Your task to perform on an android device: Do I have any events tomorrow? Image 0: 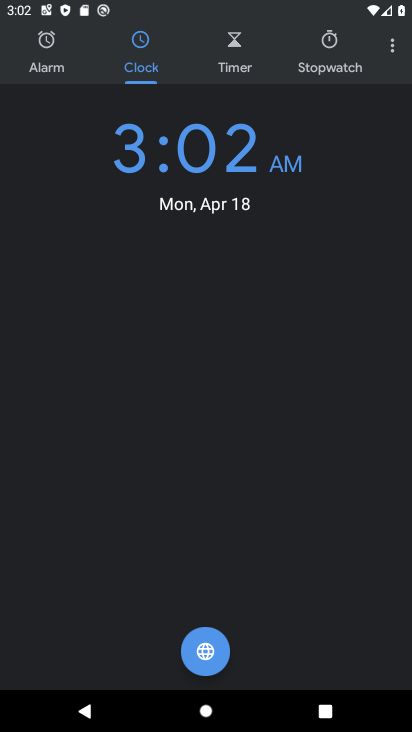
Step 0: press home button
Your task to perform on an android device: Do I have any events tomorrow? Image 1: 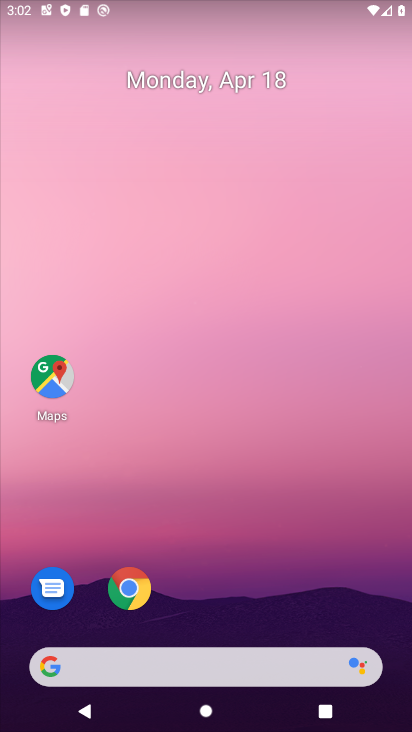
Step 1: click (238, 81)
Your task to perform on an android device: Do I have any events tomorrow? Image 2: 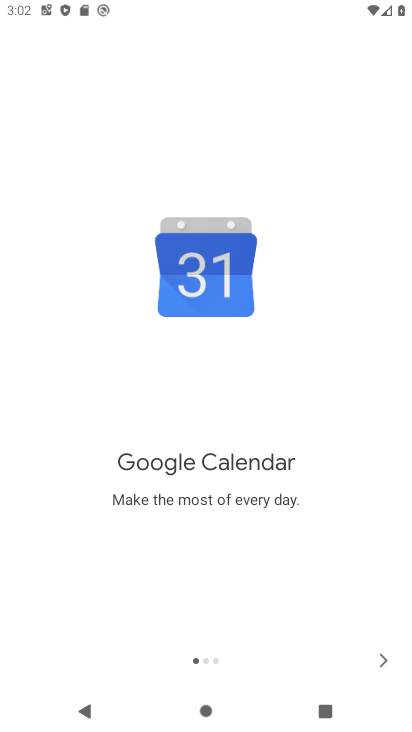
Step 2: click (387, 665)
Your task to perform on an android device: Do I have any events tomorrow? Image 3: 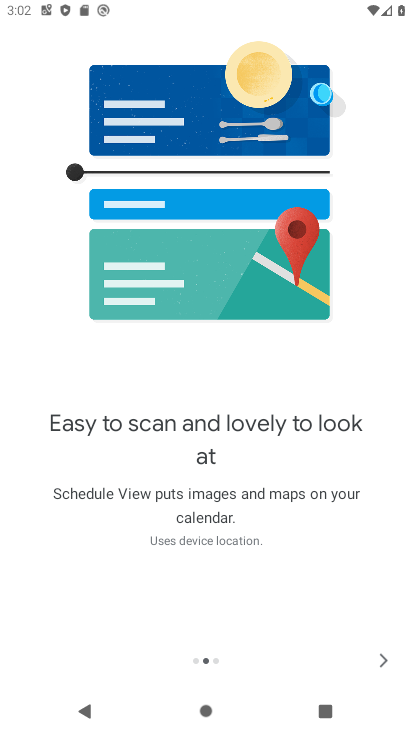
Step 3: click (387, 665)
Your task to perform on an android device: Do I have any events tomorrow? Image 4: 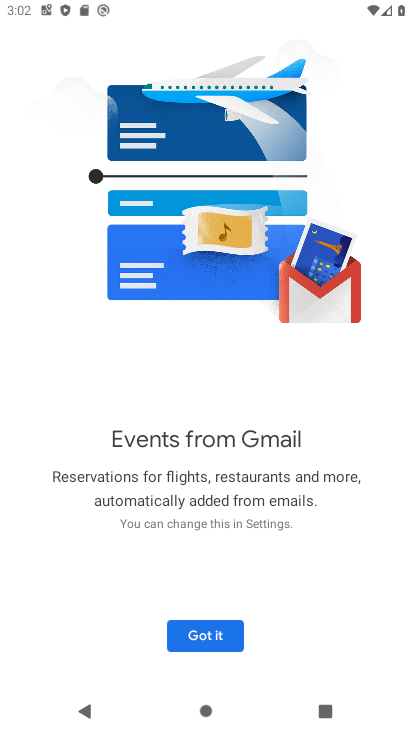
Step 4: click (216, 626)
Your task to perform on an android device: Do I have any events tomorrow? Image 5: 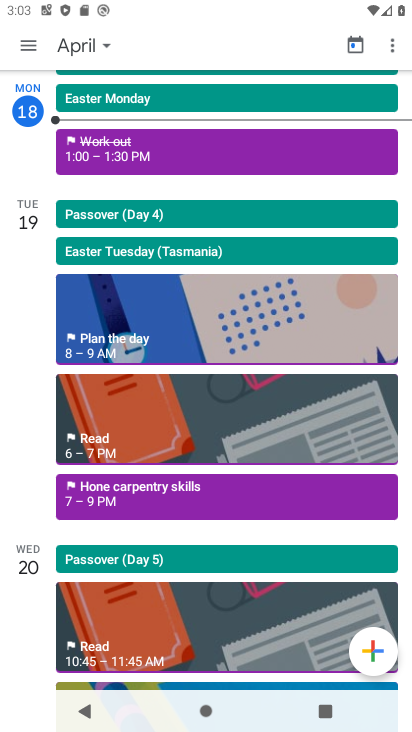
Step 5: click (110, 481)
Your task to perform on an android device: Do I have any events tomorrow? Image 6: 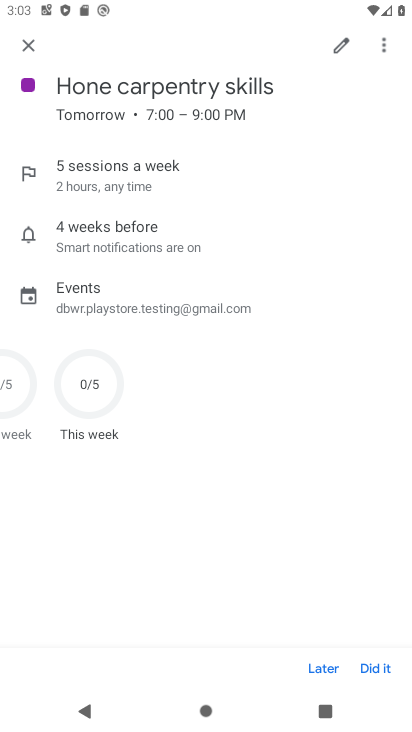
Step 6: task complete